Your task to perform on an android device: Open privacy settings Image 0: 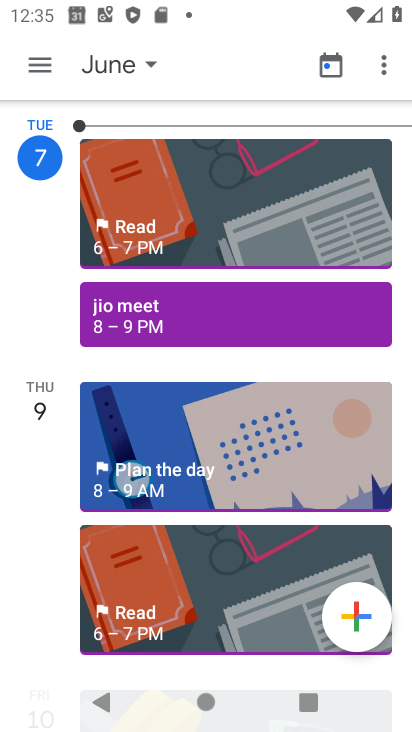
Step 0: press home button
Your task to perform on an android device: Open privacy settings Image 1: 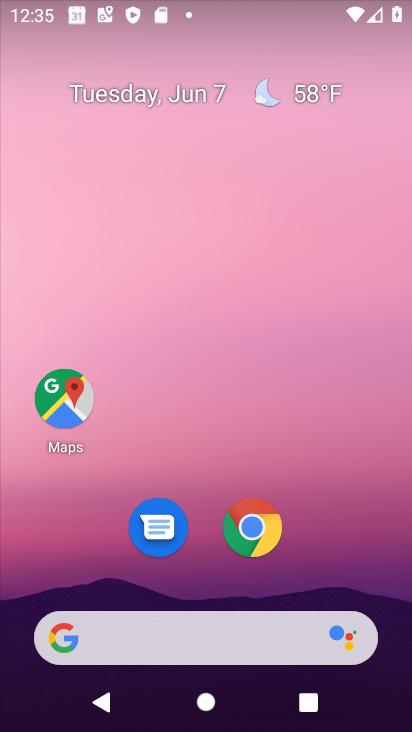
Step 1: drag from (382, 703) to (185, 153)
Your task to perform on an android device: Open privacy settings Image 2: 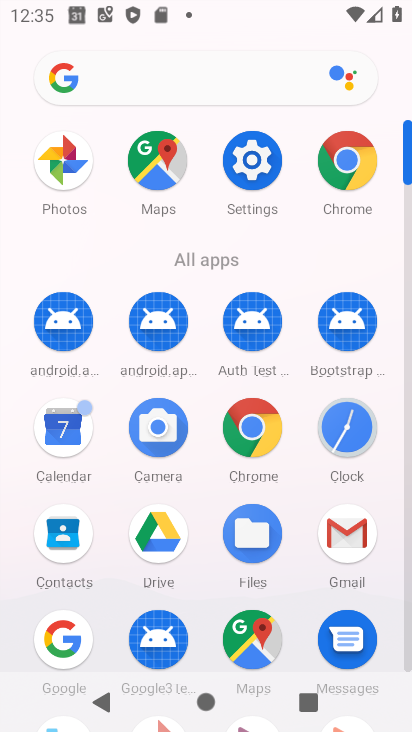
Step 2: click (338, 217)
Your task to perform on an android device: Open privacy settings Image 3: 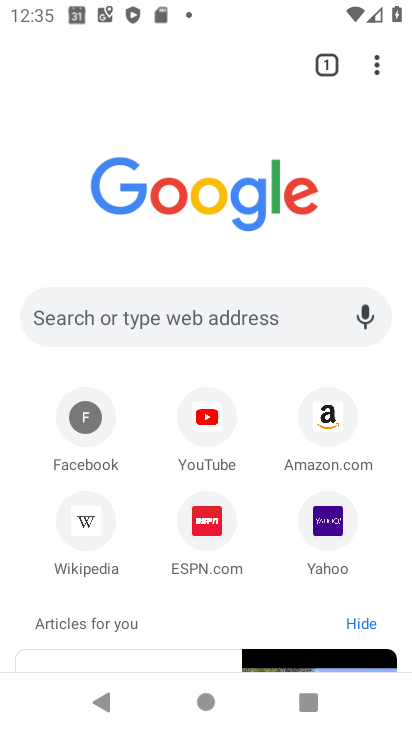
Step 3: click (367, 65)
Your task to perform on an android device: Open privacy settings Image 4: 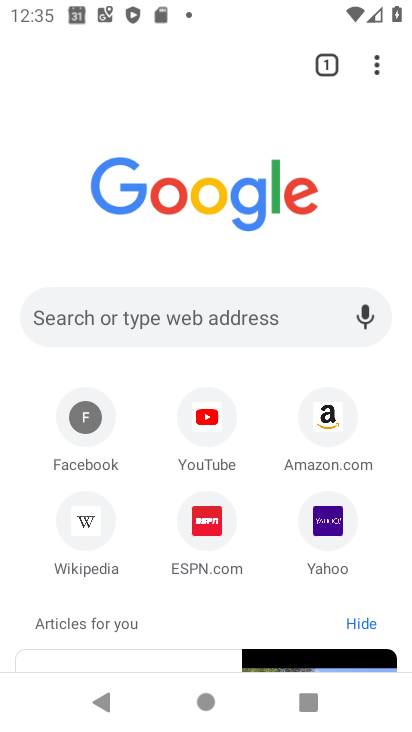
Step 4: click (377, 67)
Your task to perform on an android device: Open privacy settings Image 5: 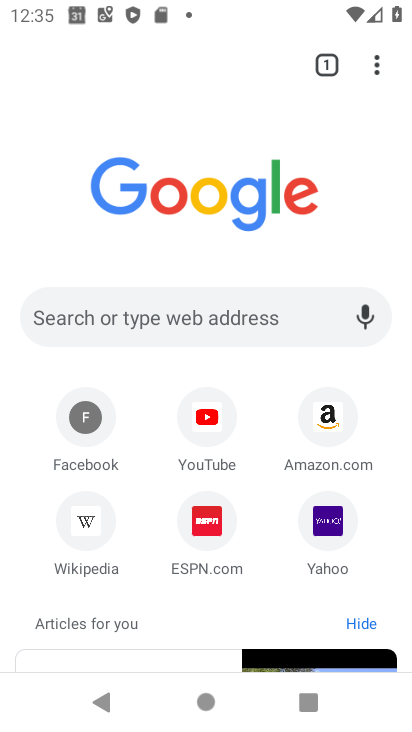
Step 5: click (377, 67)
Your task to perform on an android device: Open privacy settings Image 6: 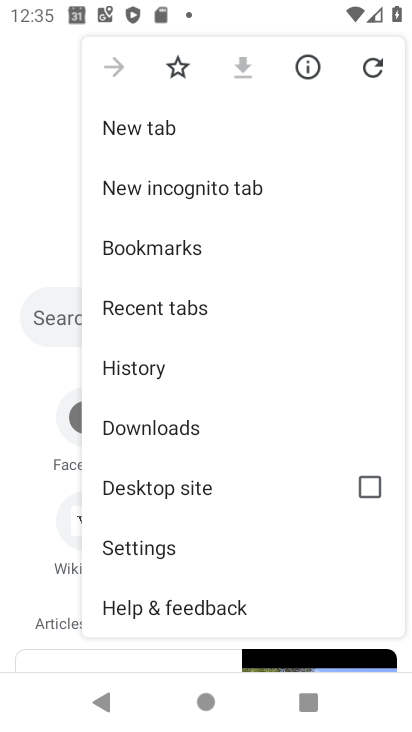
Step 6: click (155, 550)
Your task to perform on an android device: Open privacy settings Image 7: 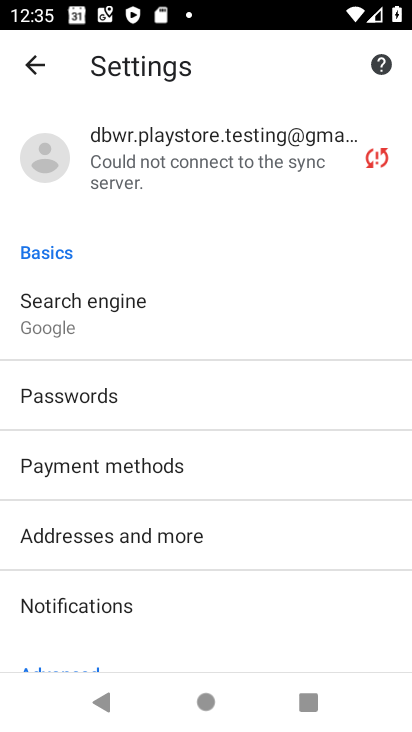
Step 7: drag from (222, 593) to (126, 409)
Your task to perform on an android device: Open privacy settings Image 8: 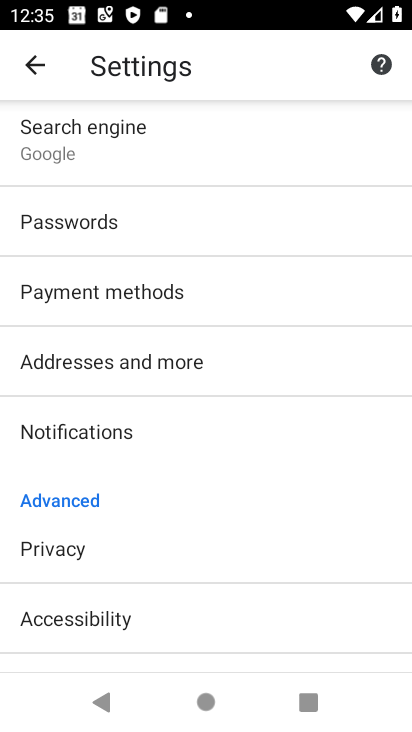
Step 8: click (60, 549)
Your task to perform on an android device: Open privacy settings Image 9: 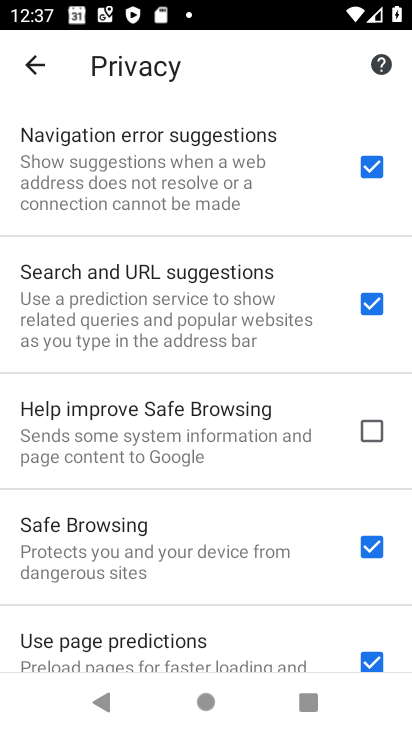
Step 9: task complete